Your task to perform on an android device: Show me popular videos on Youtube Image 0: 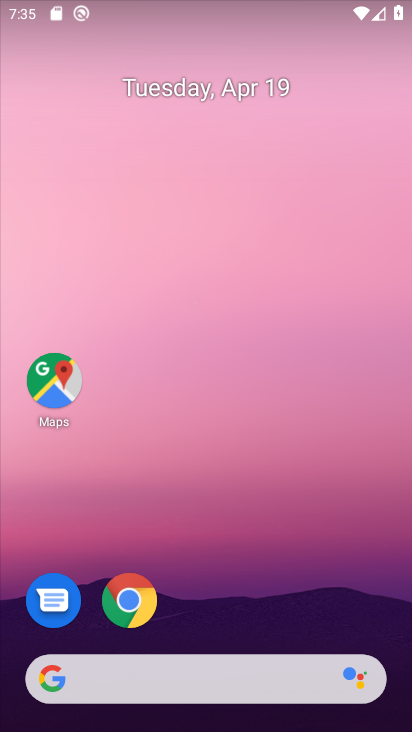
Step 0: drag from (372, 595) to (388, 78)
Your task to perform on an android device: Show me popular videos on Youtube Image 1: 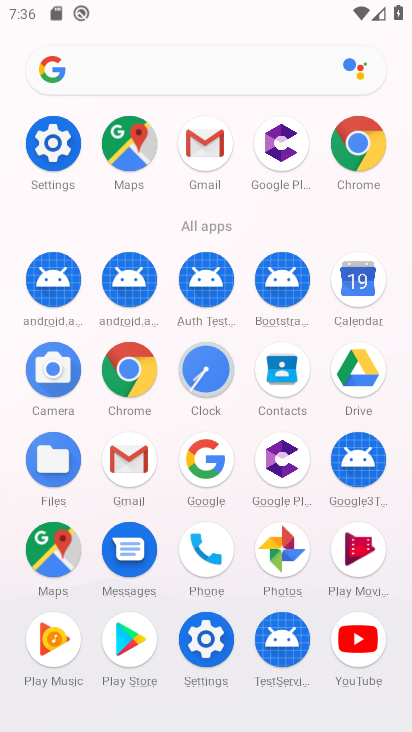
Step 1: click (366, 648)
Your task to perform on an android device: Show me popular videos on Youtube Image 2: 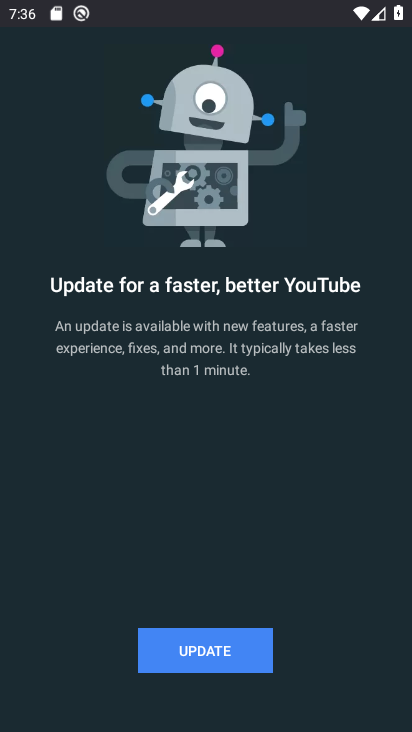
Step 2: click (258, 654)
Your task to perform on an android device: Show me popular videos on Youtube Image 3: 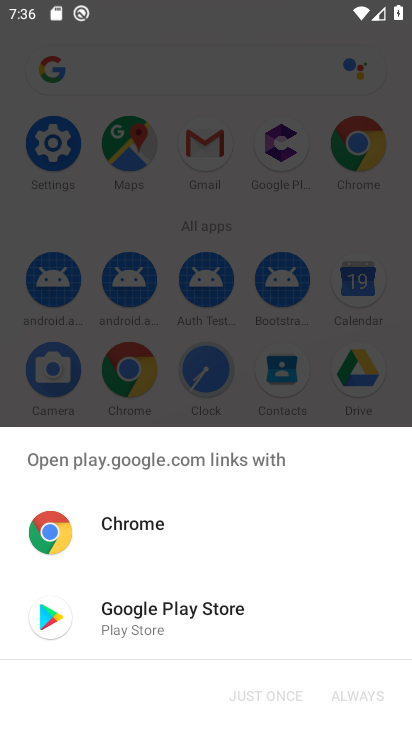
Step 3: click (180, 628)
Your task to perform on an android device: Show me popular videos on Youtube Image 4: 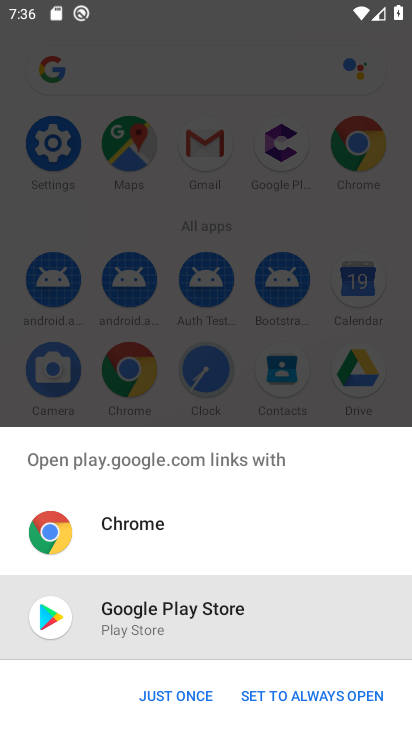
Step 4: click (187, 690)
Your task to perform on an android device: Show me popular videos on Youtube Image 5: 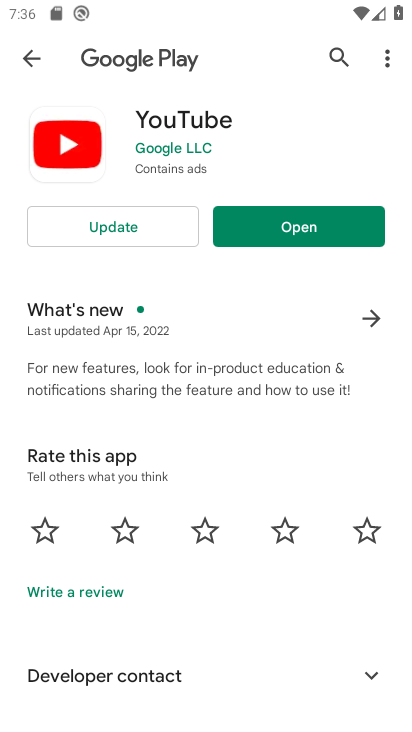
Step 5: click (151, 226)
Your task to perform on an android device: Show me popular videos on Youtube Image 6: 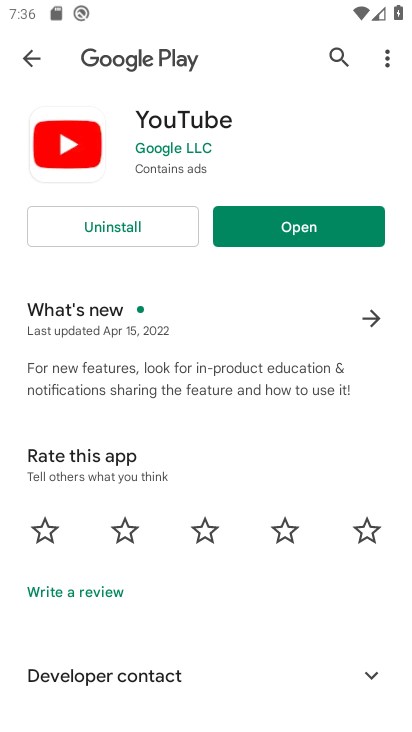
Step 6: click (362, 228)
Your task to perform on an android device: Show me popular videos on Youtube Image 7: 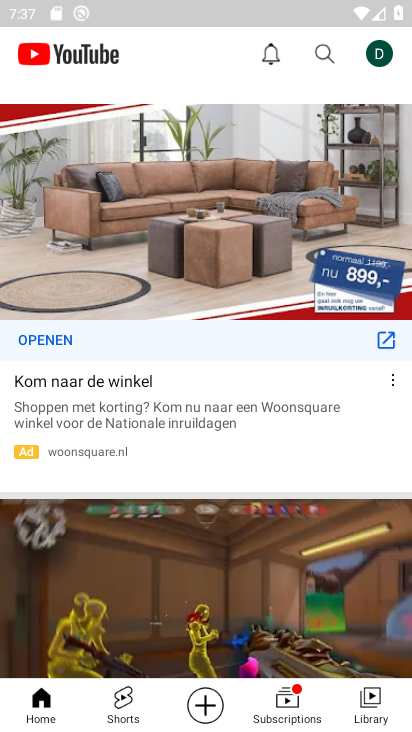
Step 7: task complete